Your task to perform on an android device: turn on priority inbox in the gmail app Image 0: 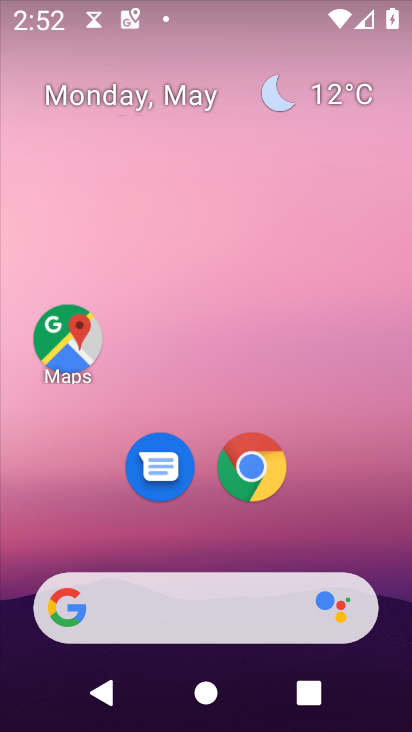
Step 0: drag from (390, 570) to (245, 117)
Your task to perform on an android device: turn on priority inbox in the gmail app Image 1: 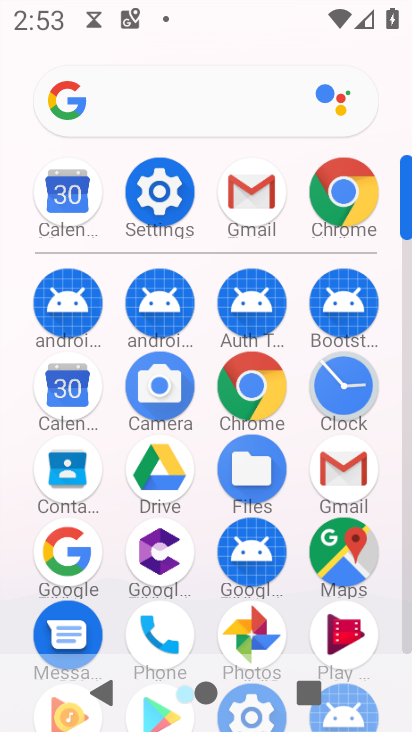
Step 1: click (266, 197)
Your task to perform on an android device: turn on priority inbox in the gmail app Image 2: 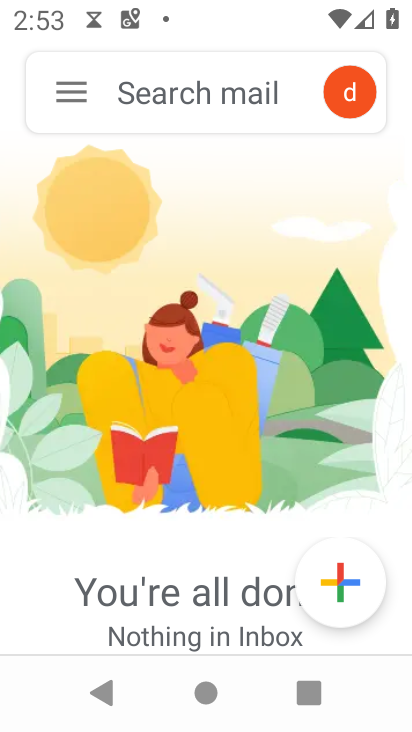
Step 2: click (70, 108)
Your task to perform on an android device: turn on priority inbox in the gmail app Image 3: 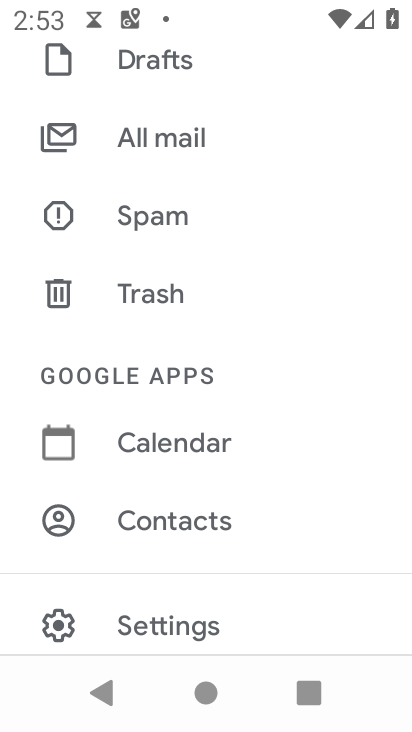
Step 3: drag from (222, 636) to (223, 92)
Your task to perform on an android device: turn on priority inbox in the gmail app Image 4: 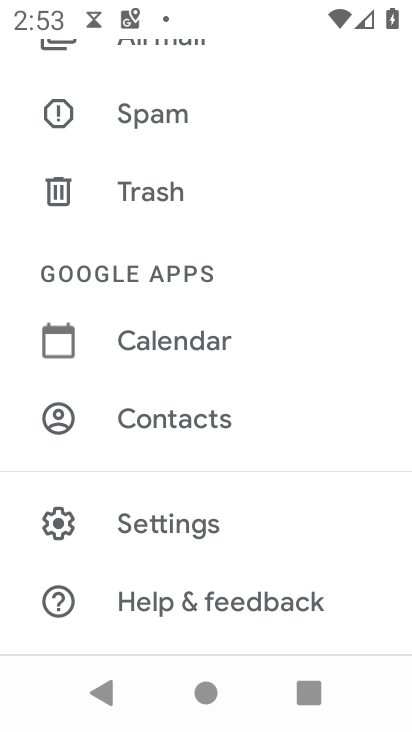
Step 4: click (196, 528)
Your task to perform on an android device: turn on priority inbox in the gmail app Image 5: 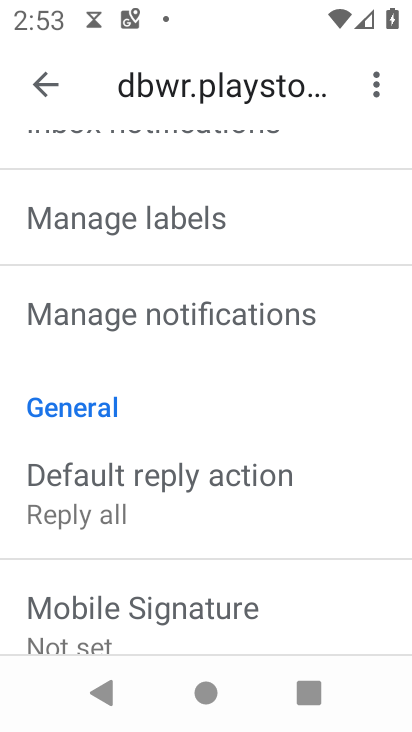
Step 5: drag from (295, 196) to (282, 332)
Your task to perform on an android device: turn on priority inbox in the gmail app Image 6: 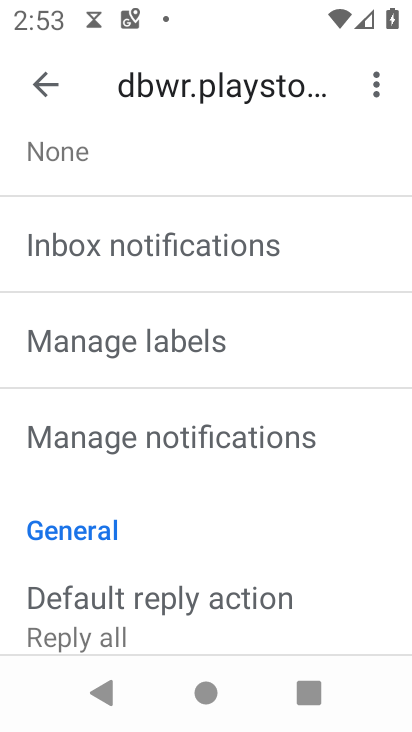
Step 6: drag from (273, 297) to (296, 622)
Your task to perform on an android device: turn on priority inbox in the gmail app Image 7: 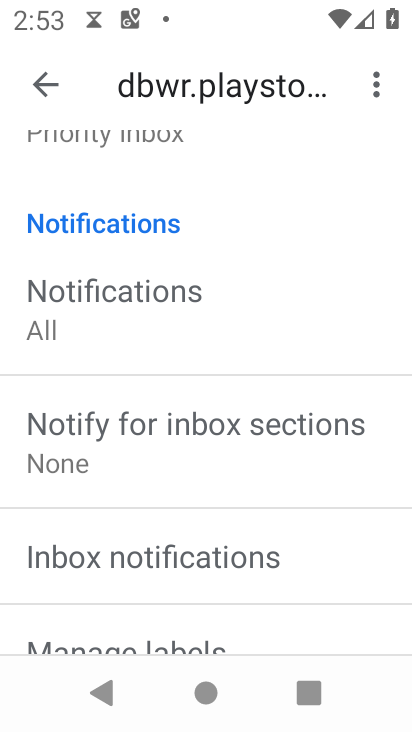
Step 7: drag from (219, 250) to (228, 507)
Your task to perform on an android device: turn on priority inbox in the gmail app Image 8: 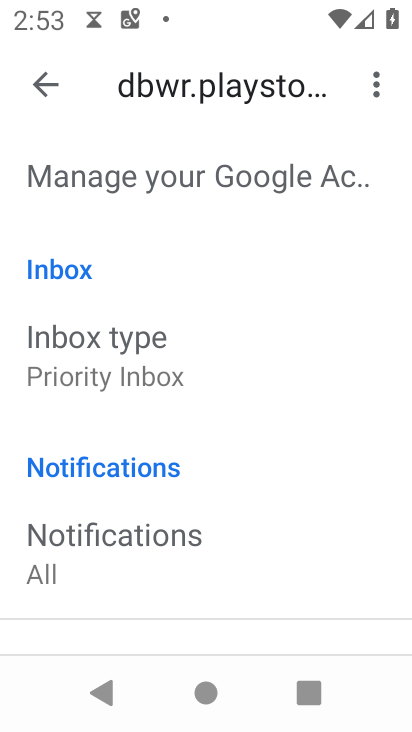
Step 8: click (208, 378)
Your task to perform on an android device: turn on priority inbox in the gmail app Image 9: 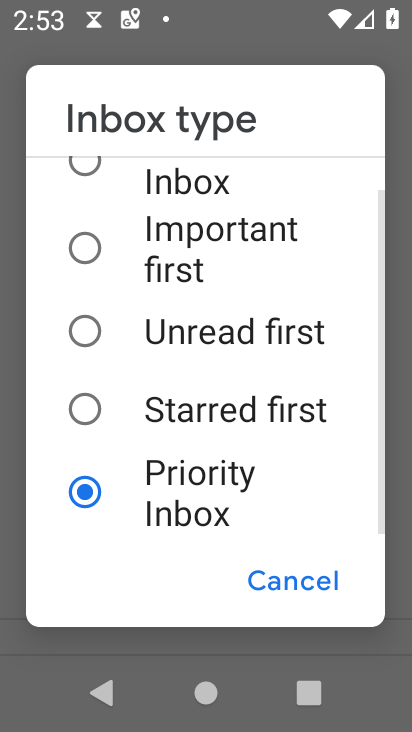
Step 9: task complete